Your task to perform on an android device: Go to Google maps Image 0: 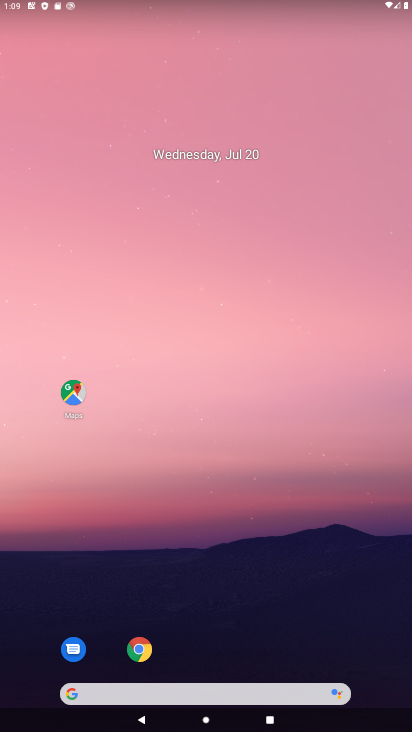
Step 0: drag from (262, 614) to (184, 0)
Your task to perform on an android device: Go to Google maps Image 1: 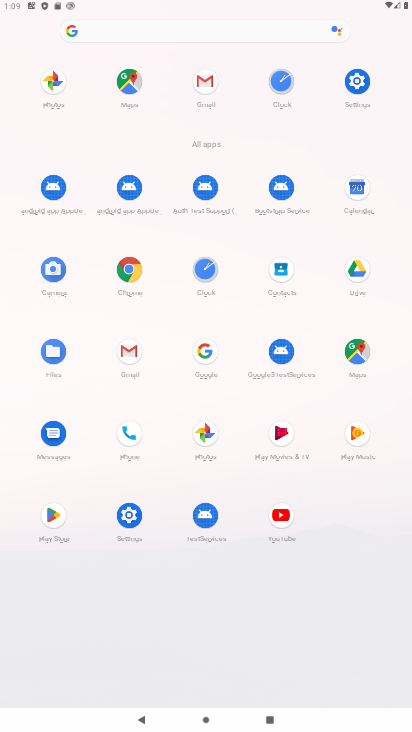
Step 1: click (126, 136)
Your task to perform on an android device: Go to Google maps Image 2: 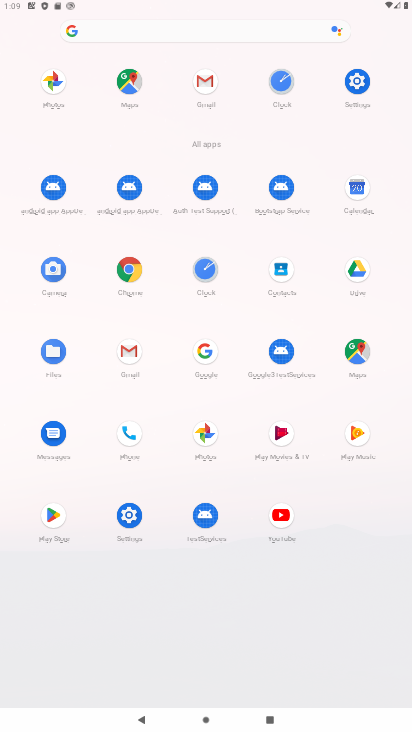
Step 2: click (133, 83)
Your task to perform on an android device: Go to Google maps Image 3: 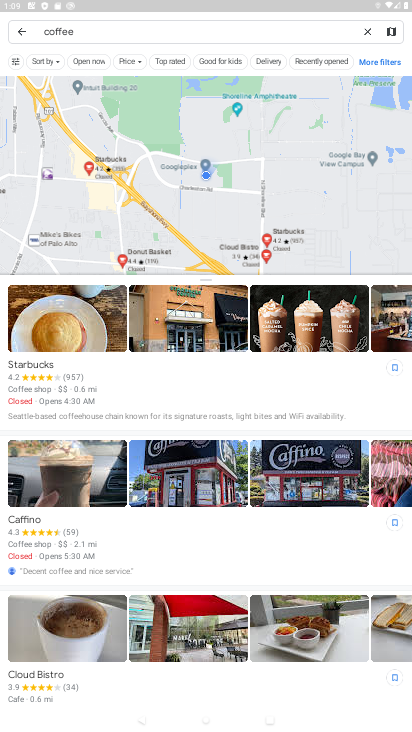
Step 3: task complete